Your task to perform on an android device: turn notification dots on Image 0: 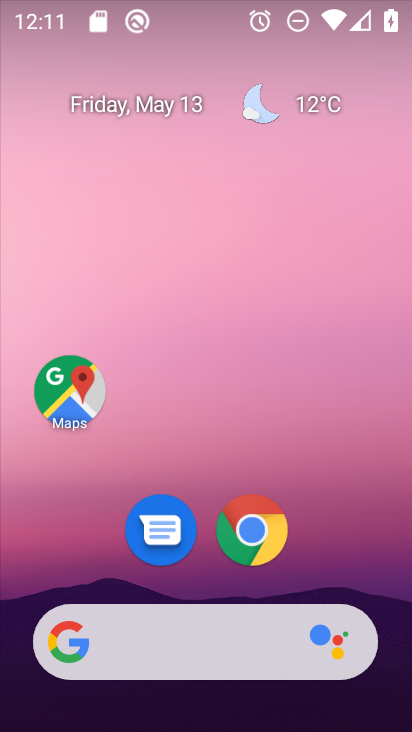
Step 0: press home button
Your task to perform on an android device: turn notification dots on Image 1: 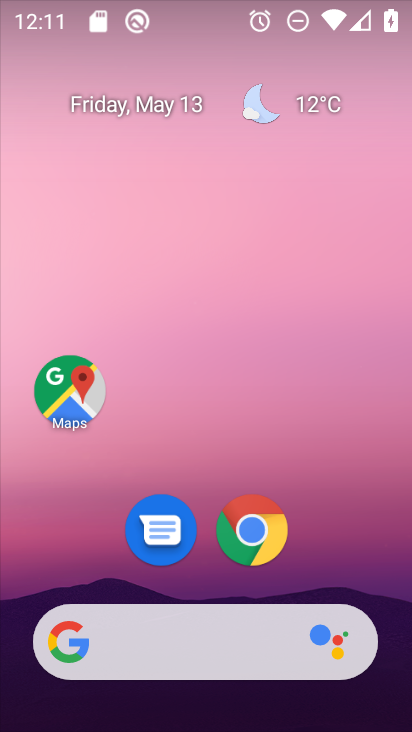
Step 1: drag from (236, 638) to (379, 156)
Your task to perform on an android device: turn notification dots on Image 2: 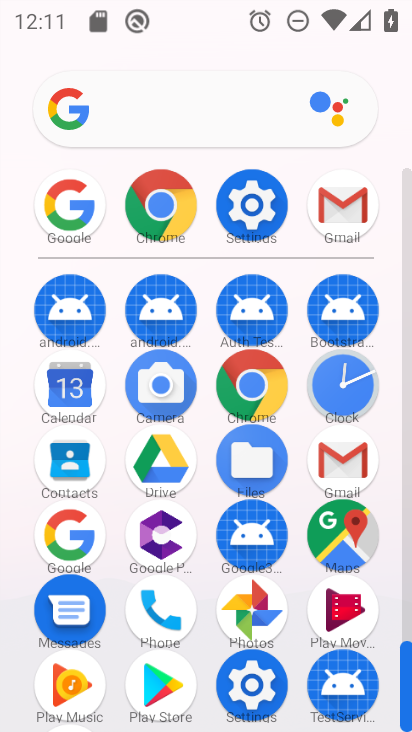
Step 2: click (260, 201)
Your task to perform on an android device: turn notification dots on Image 3: 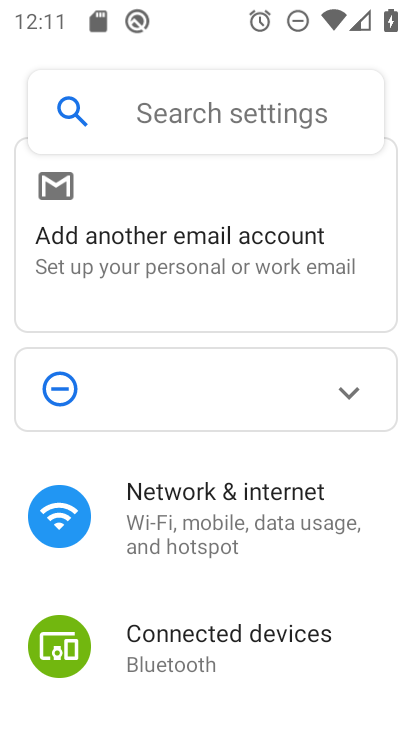
Step 3: drag from (186, 609) to (331, 126)
Your task to perform on an android device: turn notification dots on Image 4: 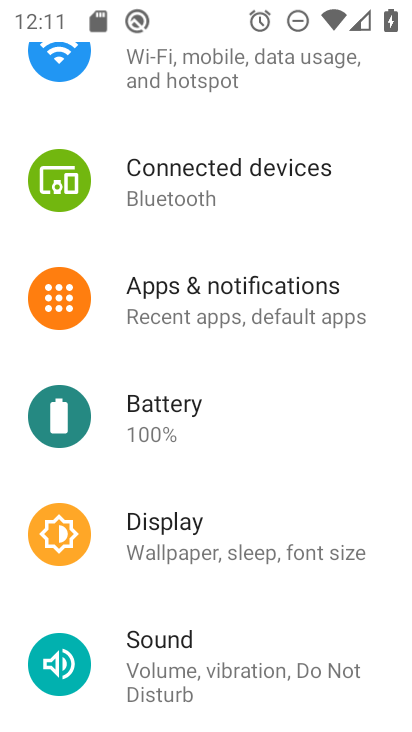
Step 4: click (259, 288)
Your task to perform on an android device: turn notification dots on Image 5: 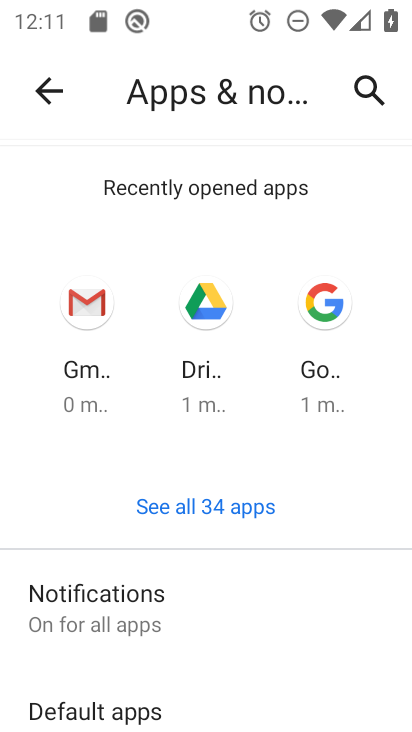
Step 5: click (119, 617)
Your task to perform on an android device: turn notification dots on Image 6: 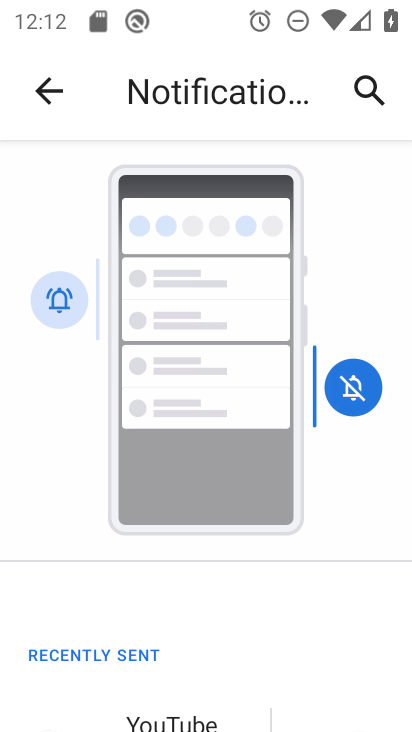
Step 6: drag from (256, 655) to (379, 85)
Your task to perform on an android device: turn notification dots on Image 7: 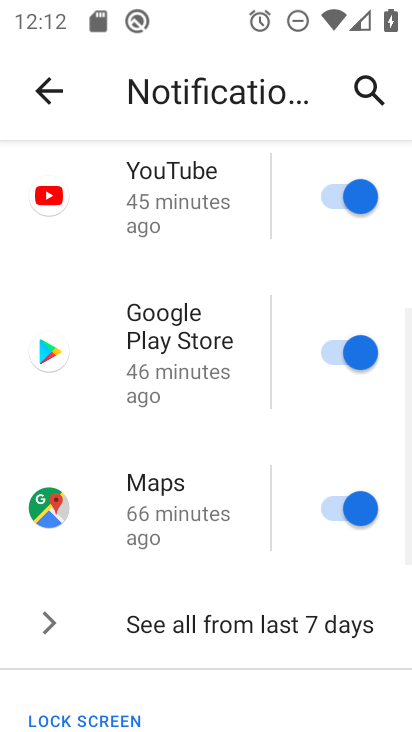
Step 7: drag from (202, 632) to (341, 104)
Your task to perform on an android device: turn notification dots on Image 8: 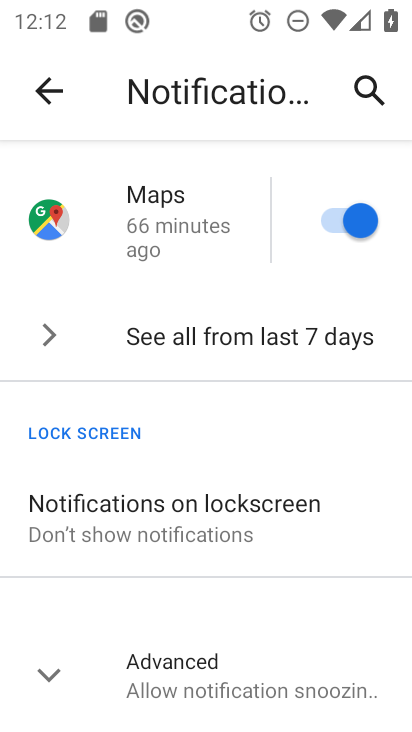
Step 8: click (183, 662)
Your task to perform on an android device: turn notification dots on Image 9: 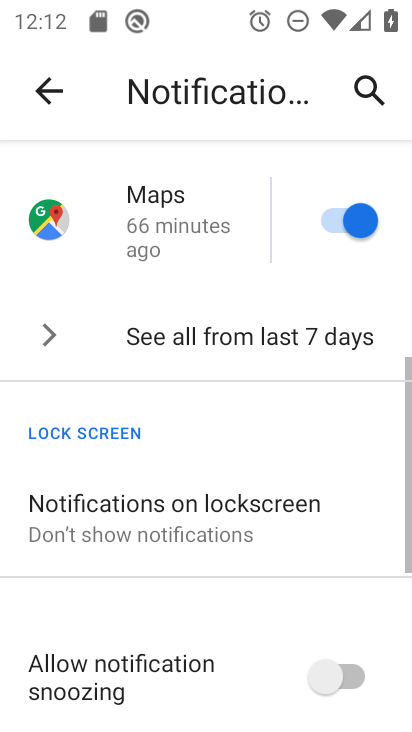
Step 9: task complete